Your task to perform on an android device: turn on bluetooth scan Image 0: 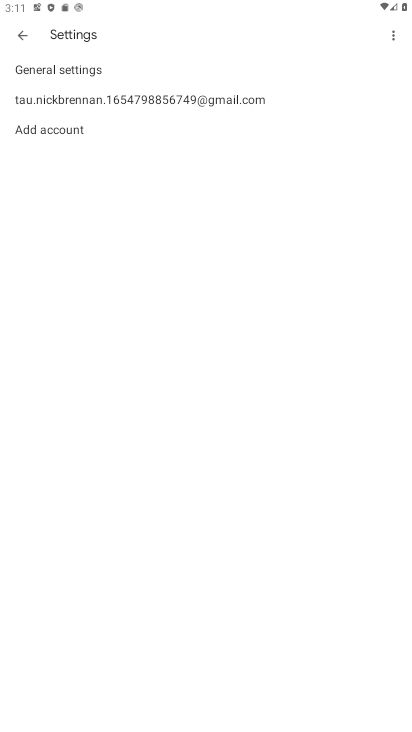
Step 0: press home button
Your task to perform on an android device: turn on bluetooth scan Image 1: 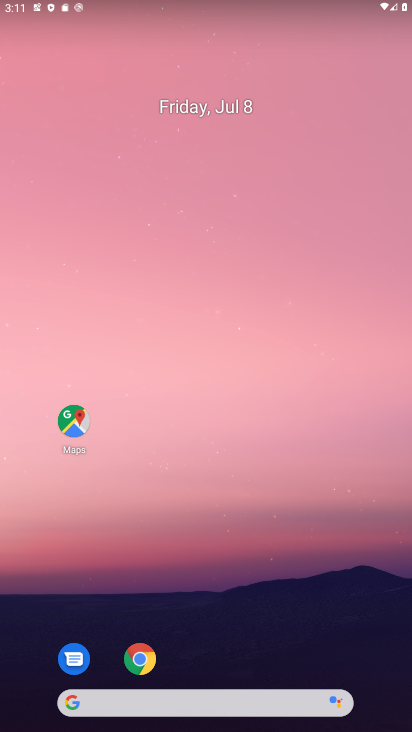
Step 1: drag from (199, 672) to (201, 287)
Your task to perform on an android device: turn on bluetooth scan Image 2: 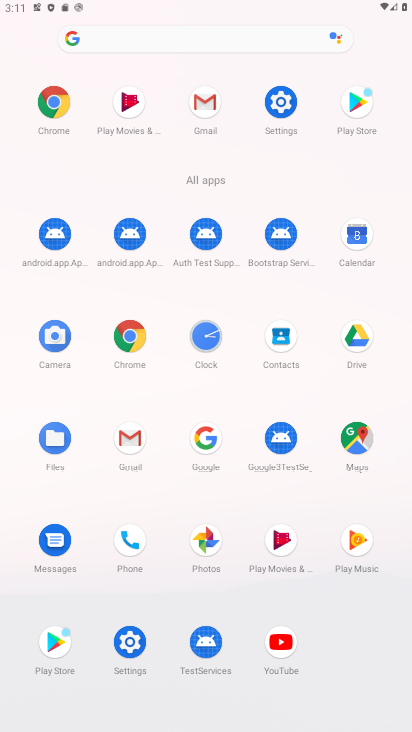
Step 2: click (284, 118)
Your task to perform on an android device: turn on bluetooth scan Image 3: 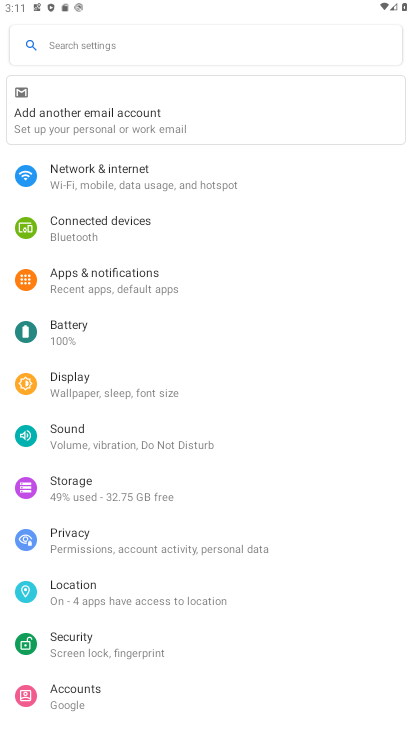
Step 3: click (116, 597)
Your task to perform on an android device: turn on bluetooth scan Image 4: 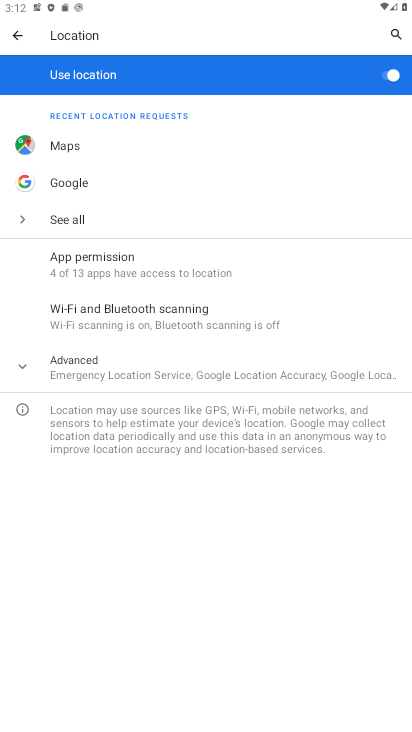
Step 4: click (113, 372)
Your task to perform on an android device: turn on bluetooth scan Image 5: 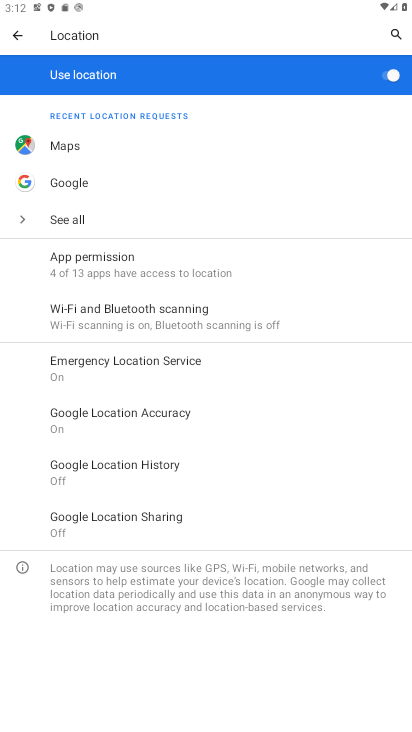
Step 5: click (172, 322)
Your task to perform on an android device: turn on bluetooth scan Image 6: 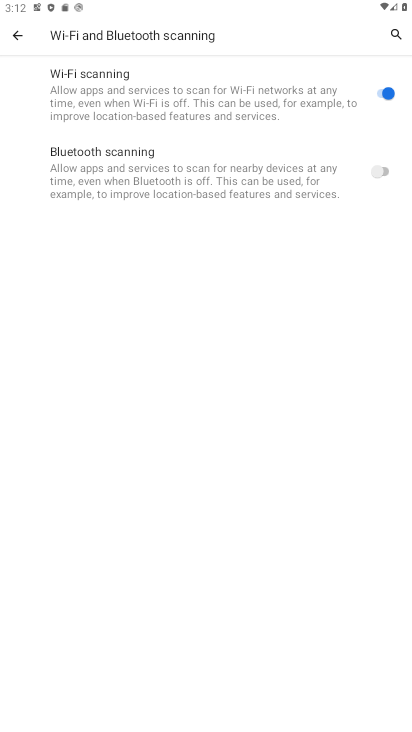
Step 6: click (384, 170)
Your task to perform on an android device: turn on bluetooth scan Image 7: 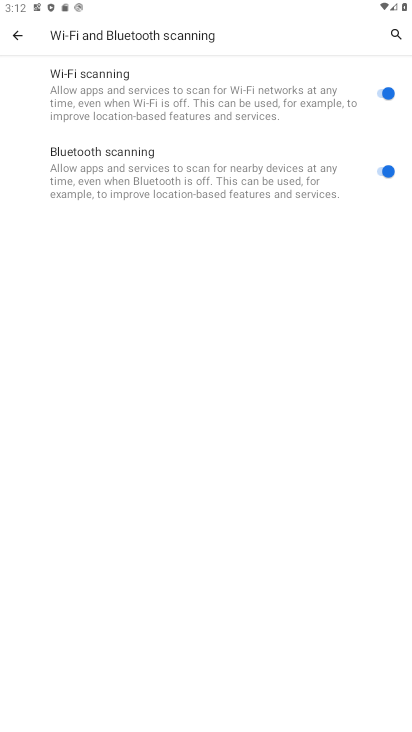
Step 7: task complete